Your task to perform on an android device: change timer sound Image 0: 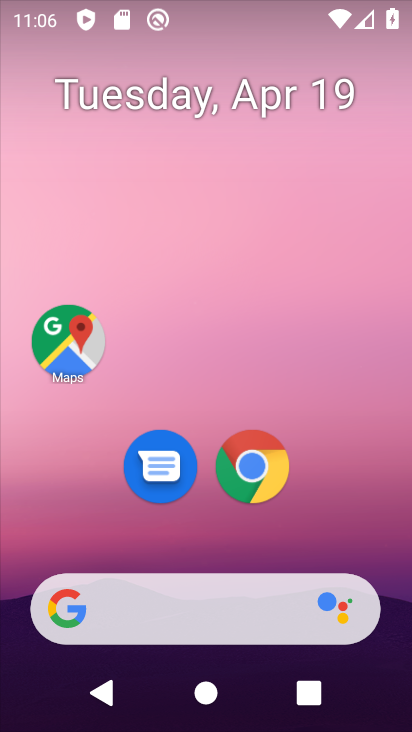
Step 0: drag from (130, 550) to (314, 13)
Your task to perform on an android device: change timer sound Image 1: 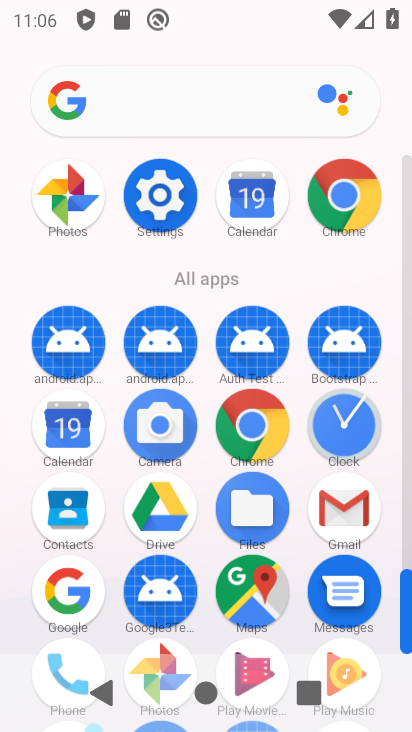
Step 1: click (347, 410)
Your task to perform on an android device: change timer sound Image 2: 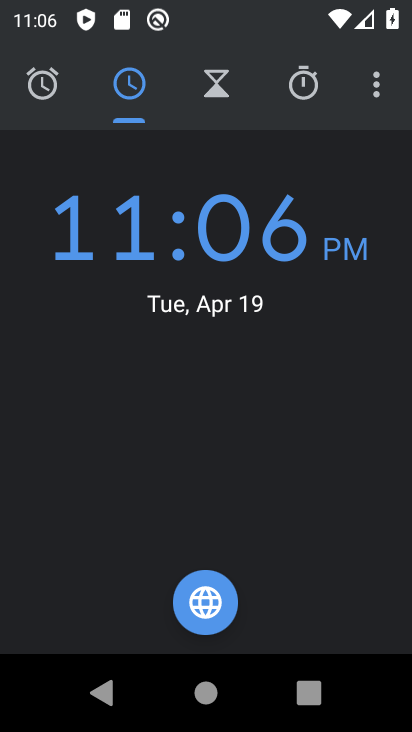
Step 2: click (382, 82)
Your task to perform on an android device: change timer sound Image 3: 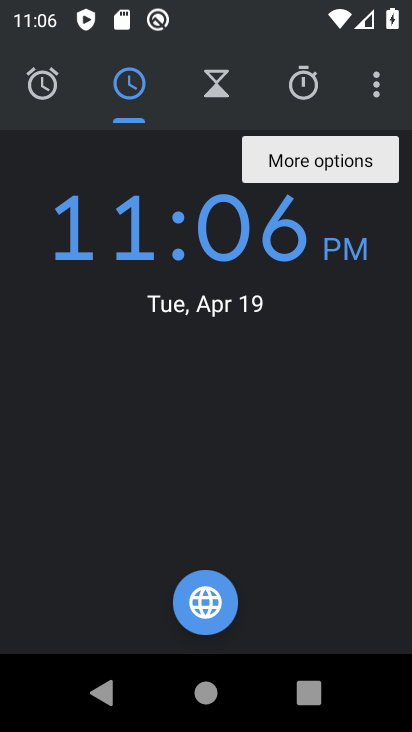
Step 3: click (382, 84)
Your task to perform on an android device: change timer sound Image 4: 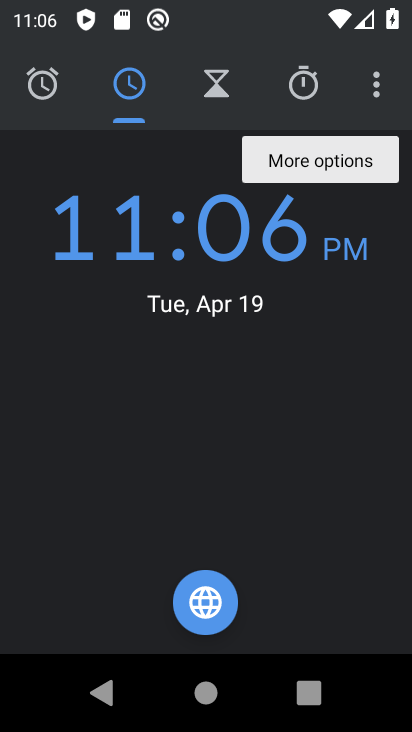
Step 4: click (380, 98)
Your task to perform on an android device: change timer sound Image 5: 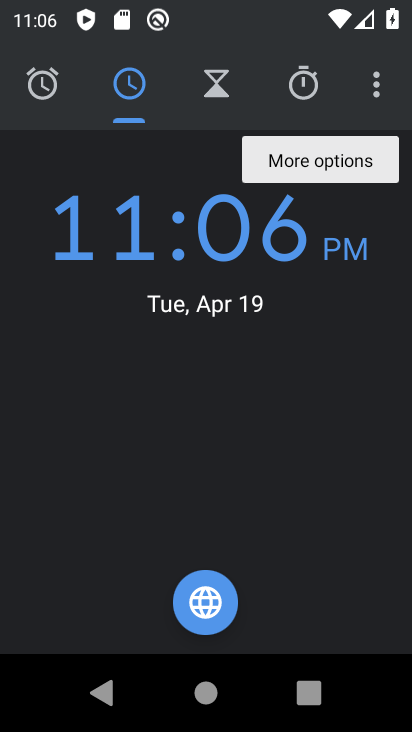
Step 5: click (380, 95)
Your task to perform on an android device: change timer sound Image 6: 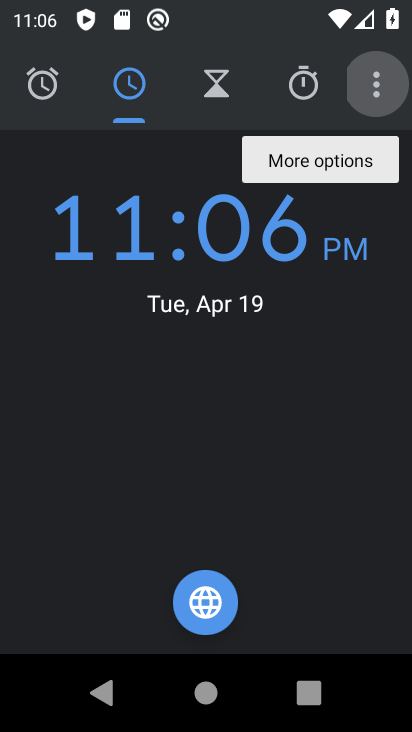
Step 6: click (360, 160)
Your task to perform on an android device: change timer sound Image 7: 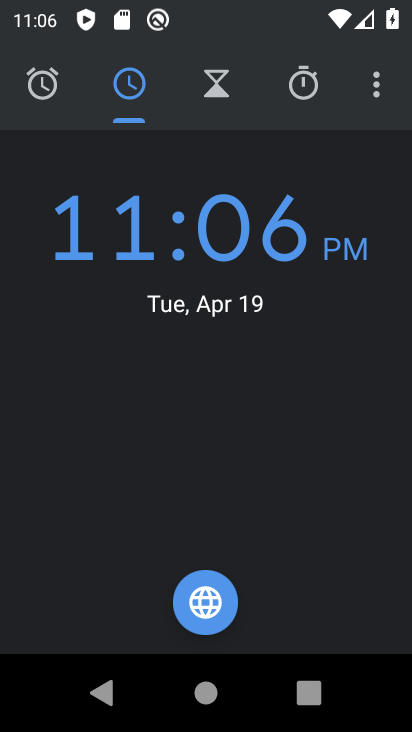
Step 7: drag from (369, 78) to (345, 151)
Your task to perform on an android device: change timer sound Image 8: 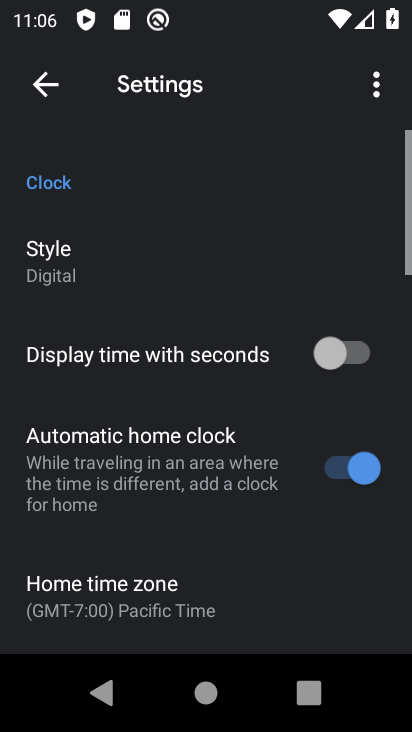
Step 8: drag from (188, 541) to (392, 53)
Your task to perform on an android device: change timer sound Image 9: 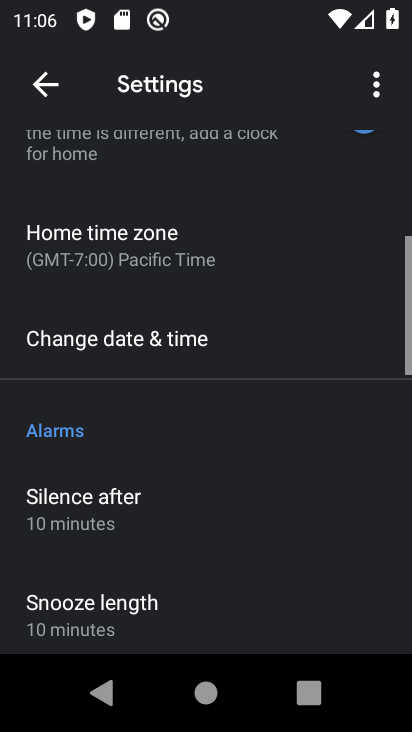
Step 9: drag from (241, 519) to (411, 134)
Your task to perform on an android device: change timer sound Image 10: 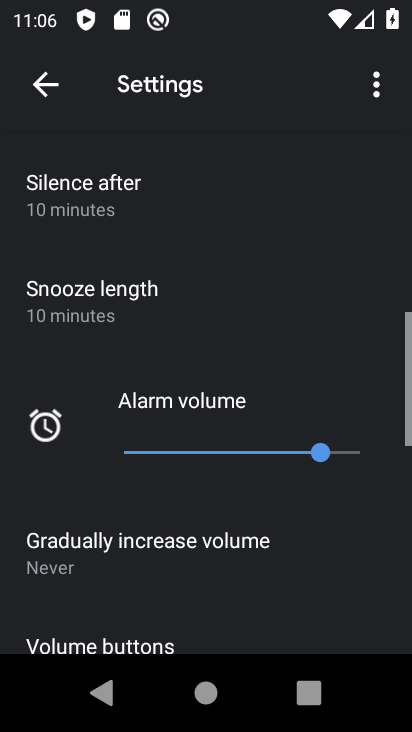
Step 10: drag from (206, 501) to (348, 78)
Your task to perform on an android device: change timer sound Image 11: 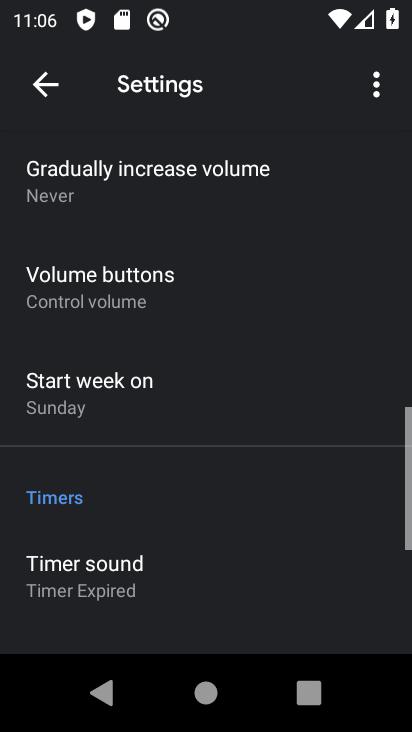
Step 11: drag from (237, 517) to (292, 303)
Your task to perform on an android device: change timer sound Image 12: 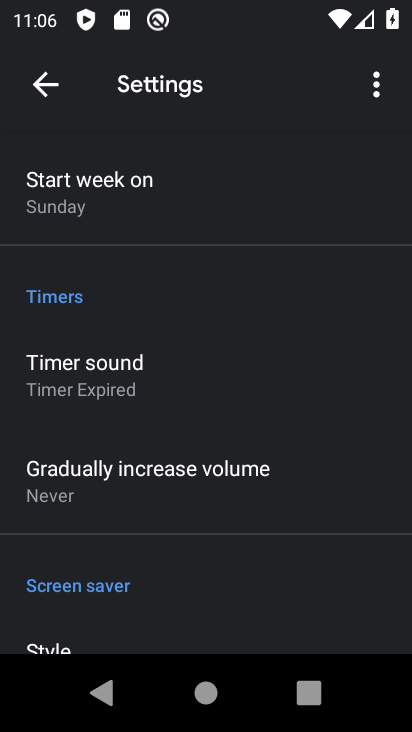
Step 12: click (162, 372)
Your task to perform on an android device: change timer sound Image 13: 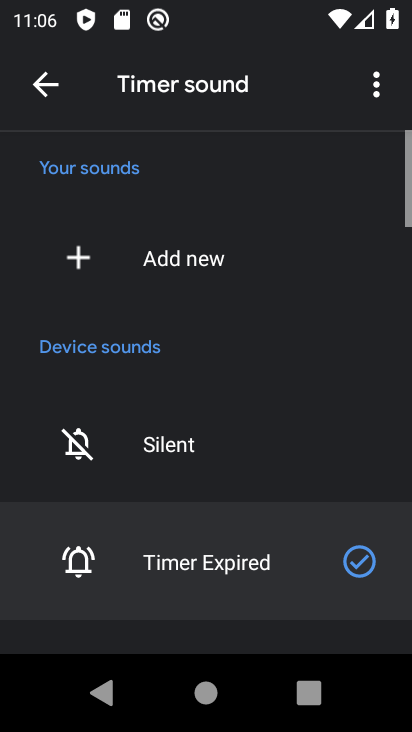
Step 13: drag from (224, 495) to (410, 67)
Your task to perform on an android device: change timer sound Image 14: 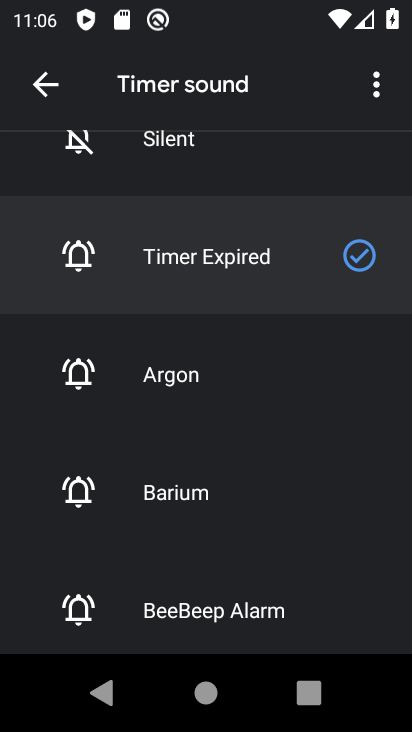
Step 14: click (265, 591)
Your task to perform on an android device: change timer sound Image 15: 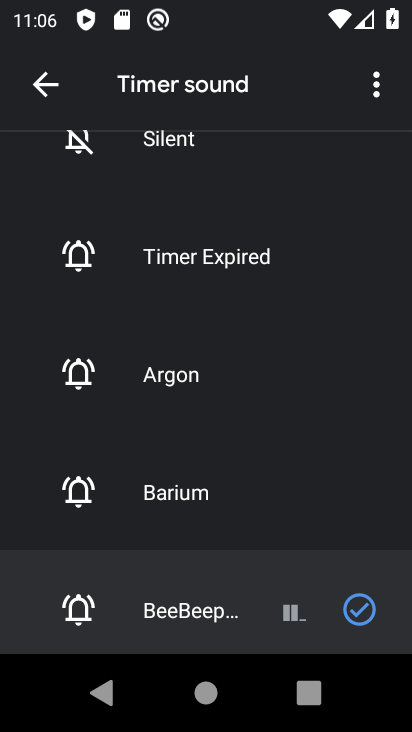
Step 15: task complete